Your task to perform on an android device: check the backup settings in the google photos Image 0: 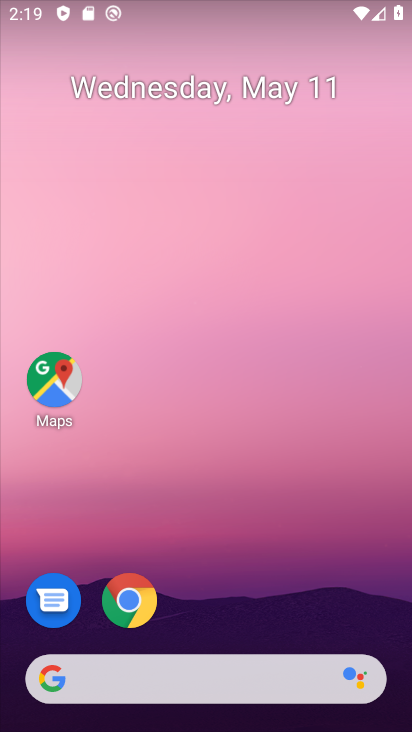
Step 0: drag from (206, 540) to (232, 41)
Your task to perform on an android device: check the backup settings in the google photos Image 1: 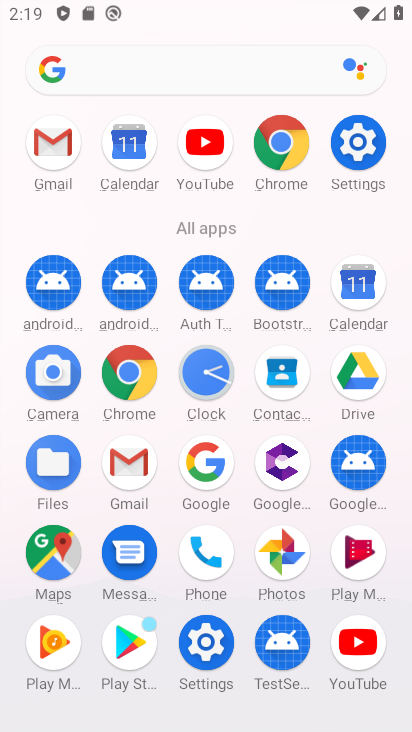
Step 1: click (273, 555)
Your task to perform on an android device: check the backup settings in the google photos Image 2: 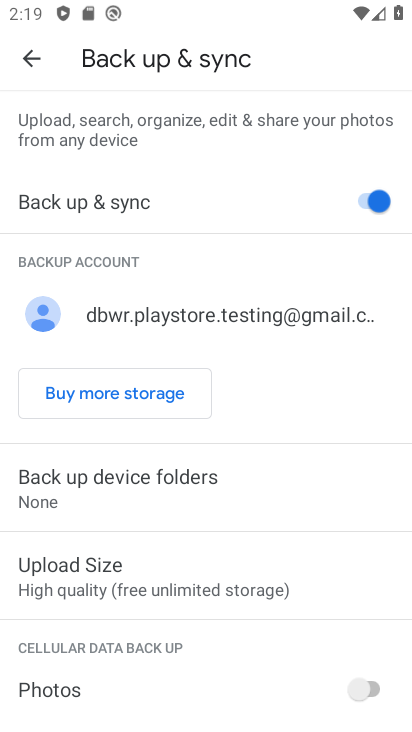
Step 2: task complete